Your task to perform on an android device: toggle translation in the chrome app Image 0: 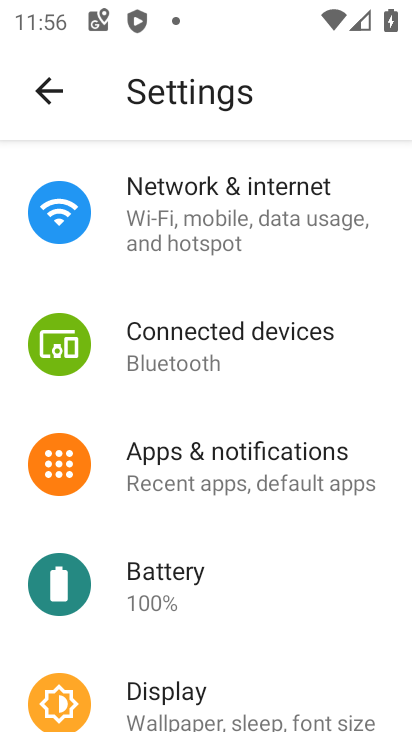
Step 0: press home button
Your task to perform on an android device: toggle translation in the chrome app Image 1: 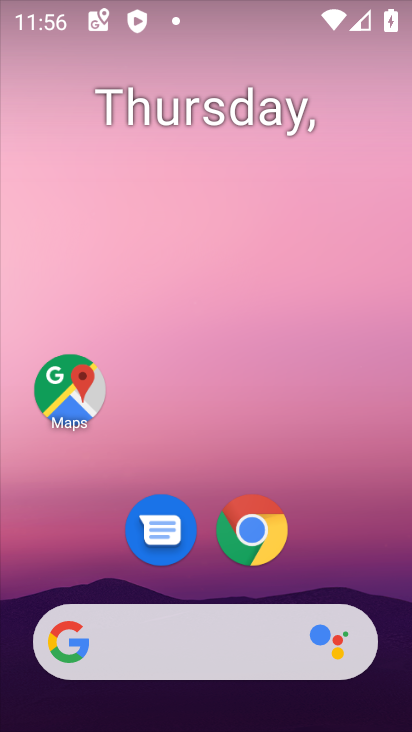
Step 1: click (254, 527)
Your task to perform on an android device: toggle translation in the chrome app Image 2: 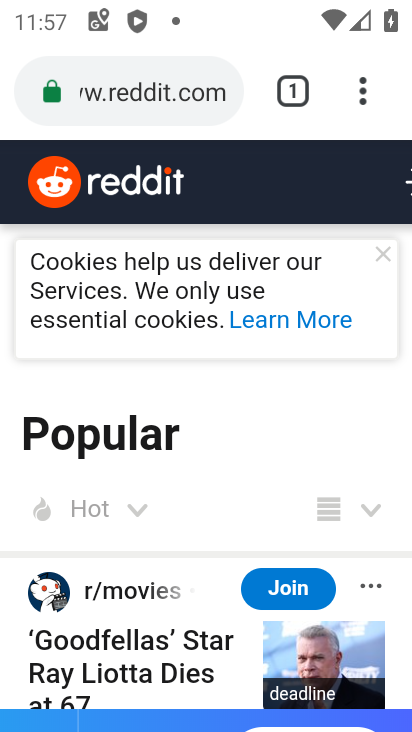
Step 2: click (363, 92)
Your task to perform on an android device: toggle translation in the chrome app Image 3: 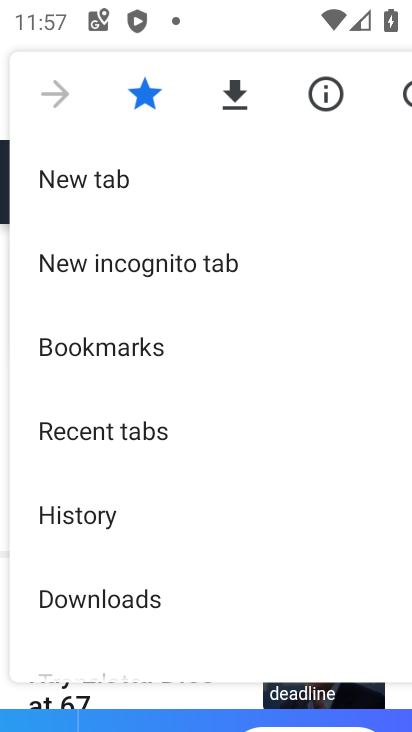
Step 3: drag from (103, 463) to (175, 359)
Your task to perform on an android device: toggle translation in the chrome app Image 4: 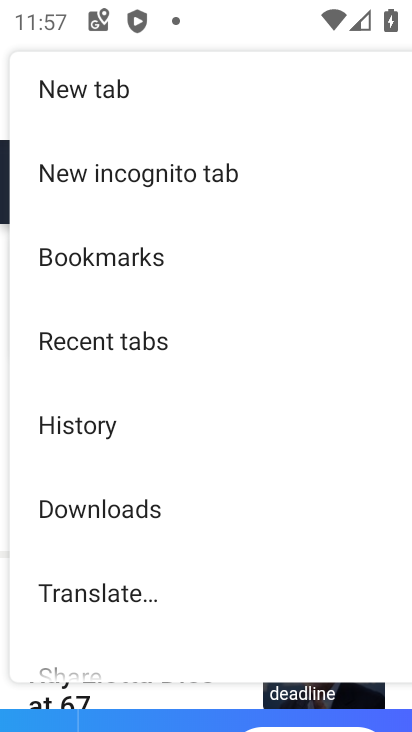
Step 4: drag from (112, 471) to (162, 380)
Your task to perform on an android device: toggle translation in the chrome app Image 5: 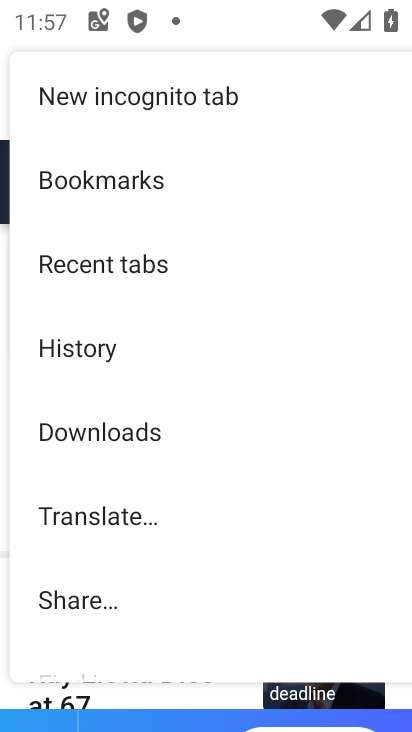
Step 5: drag from (90, 549) to (157, 450)
Your task to perform on an android device: toggle translation in the chrome app Image 6: 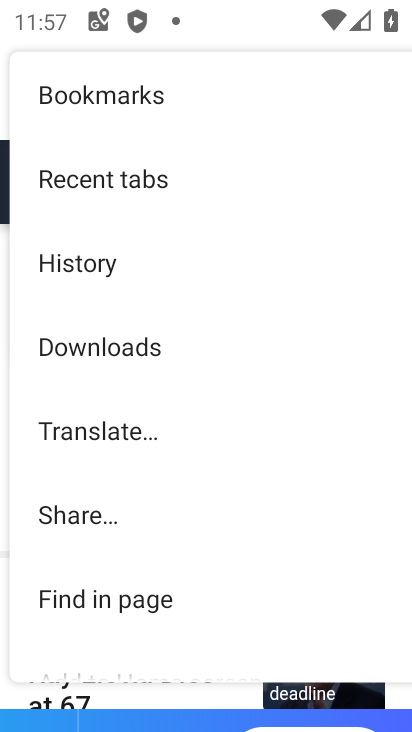
Step 6: drag from (74, 547) to (157, 428)
Your task to perform on an android device: toggle translation in the chrome app Image 7: 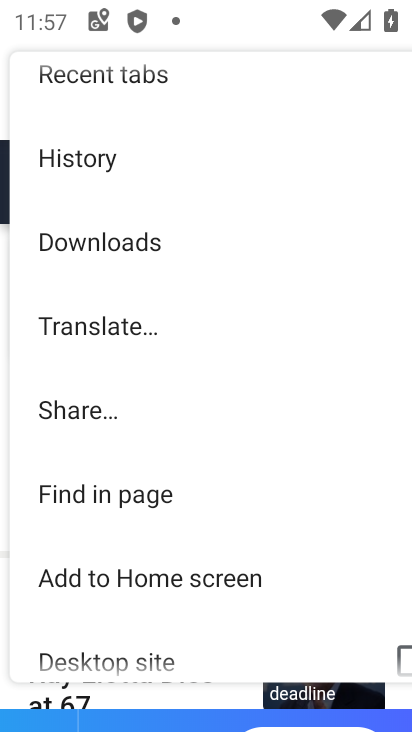
Step 7: drag from (101, 460) to (130, 389)
Your task to perform on an android device: toggle translation in the chrome app Image 8: 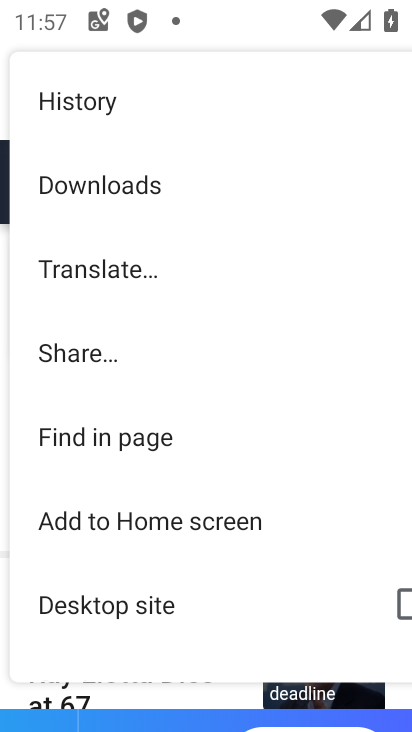
Step 8: drag from (85, 464) to (128, 383)
Your task to perform on an android device: toggle translation in the chrome app Image 9: 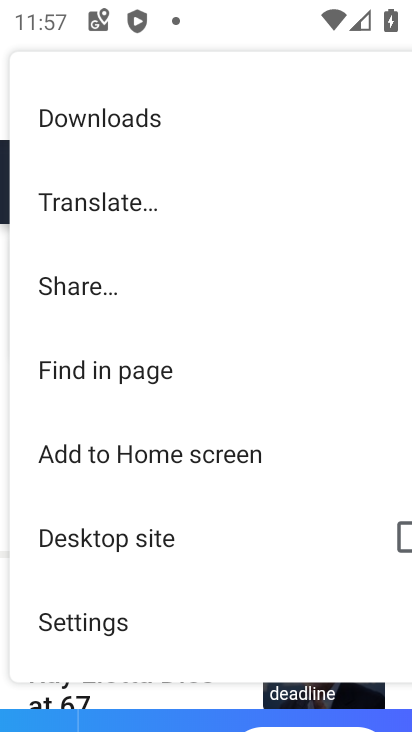
Step 9: drag from (100, 484) to (160, 382)
Your task to perform on an android device: toggle translation in the chrome app Image 10: 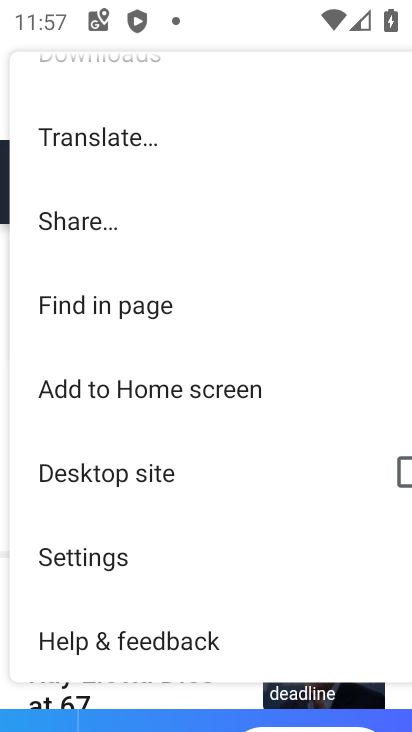
Step 10: drag from (82, 434) to (155, 335)
Your task to perform on an android device: toggle translation in the chrome app Image 11: 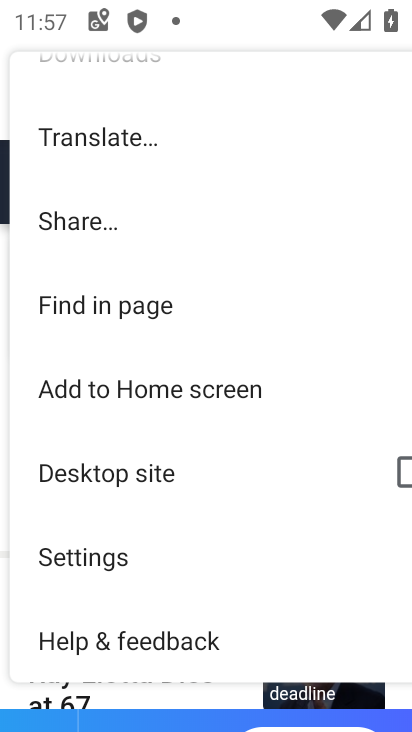
Step 11: click (109, 562)
Your task to perform on an android device: toggle translation in the chrome app Image 12: 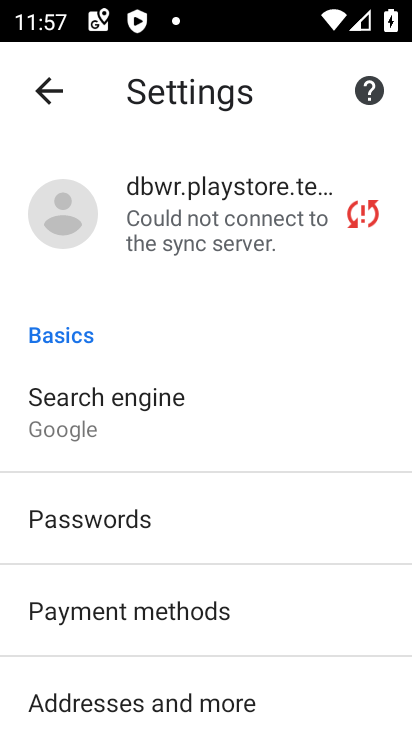
Step 12: drag from (171, 531) to (219, 443)
Your task to perform on an android device: toggle translation in the chrome app Image 13: 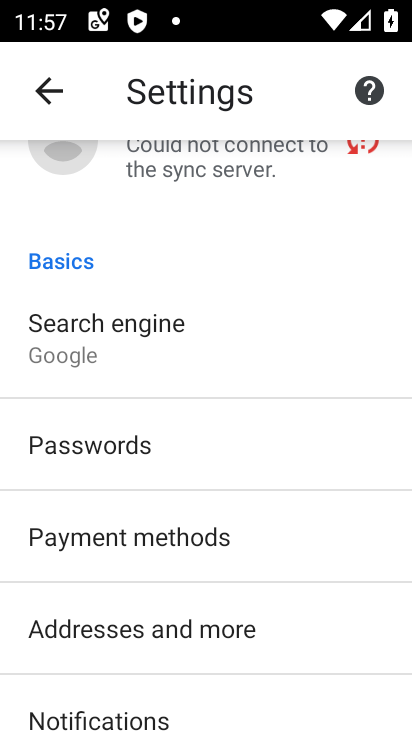
Step 13: drag from (139, 551) to (230, 449)
Your task to perform on an android device: toggle translation in the chrome app Image 14: 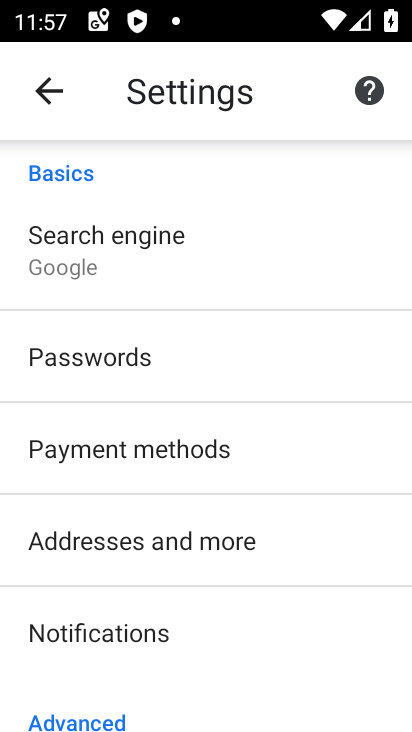
Step 14: drag from (99, 562) to (175, 473)
Your task to perform on an android device: toggle translation in the chrome app Image 15: 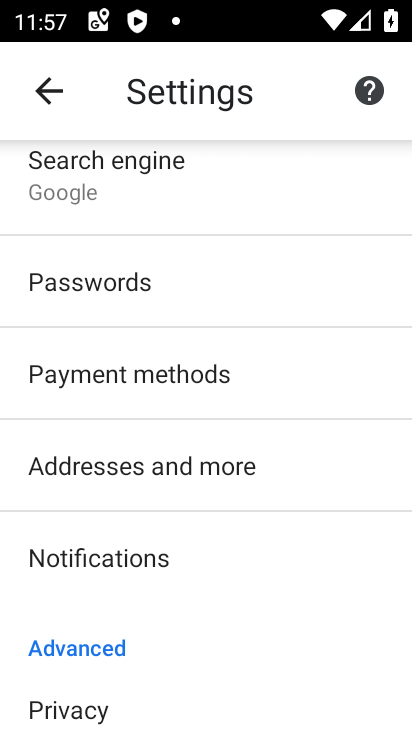
Step 15: drag from (98, 586) to (183, 497)
Your task to perform on an android device: toggle translation in the chrome app Image 16: 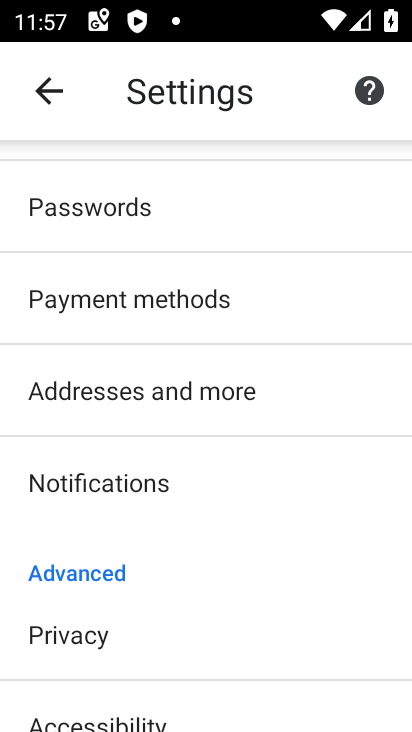
Step 16: drag from (109, 590) to (184, 492)
Your task to perform on an android device: toggle translation in the chrome app Image 17: 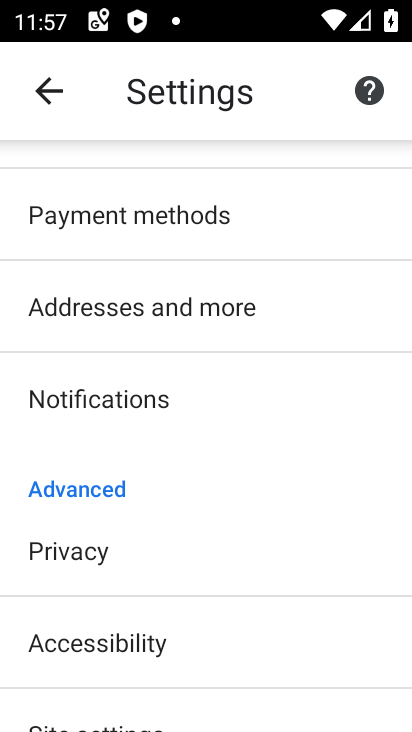
Step 17: drag from (77, 602) to (140, 536)
Your task to perform on an android device: toggle translation in the chrome app Image 18: 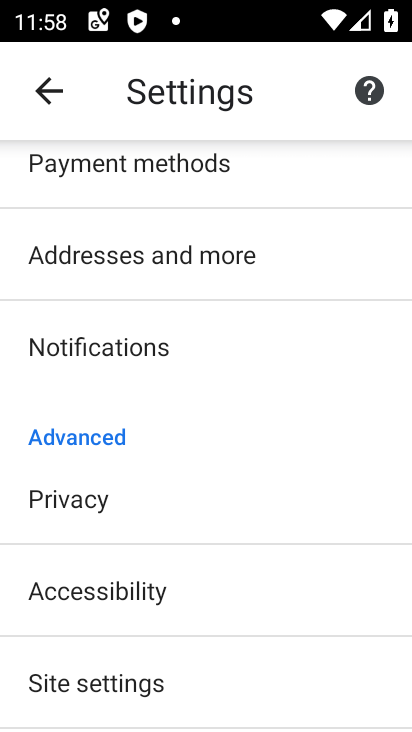
Step 18: drag from (83, 625) to (170, 446)
Your task to perform on an android device: toggle translation in the chrome app Image 19: 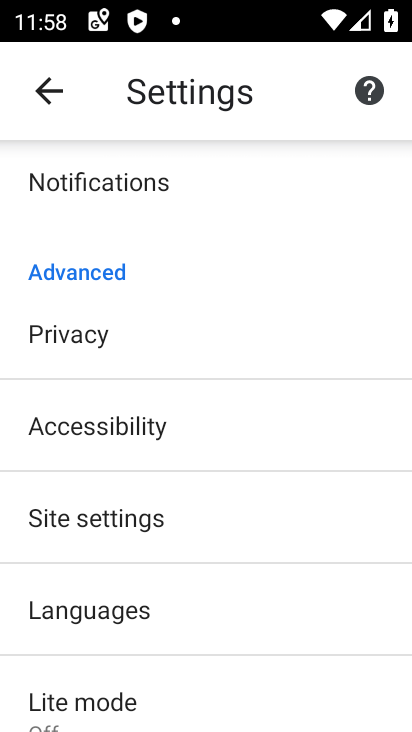
Step 19: drag from (127, 549) to (204, 437)
Your task to perform on an android device: toggle translation in the chrome app Image 20: 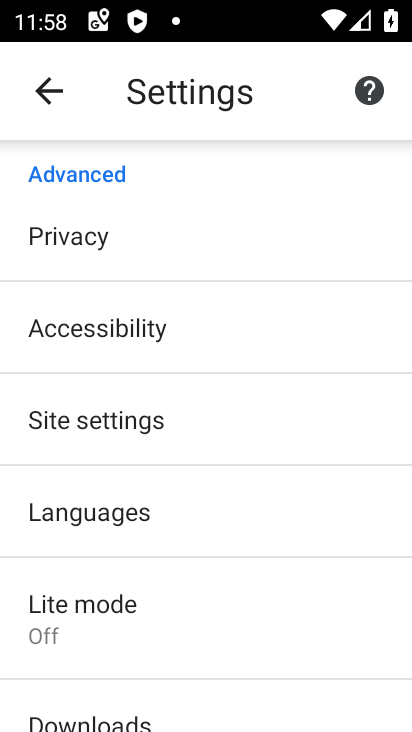
Step 20: click (95, 521)
Your task to perform on an android device: toggle translation in the chrome app Image 21: 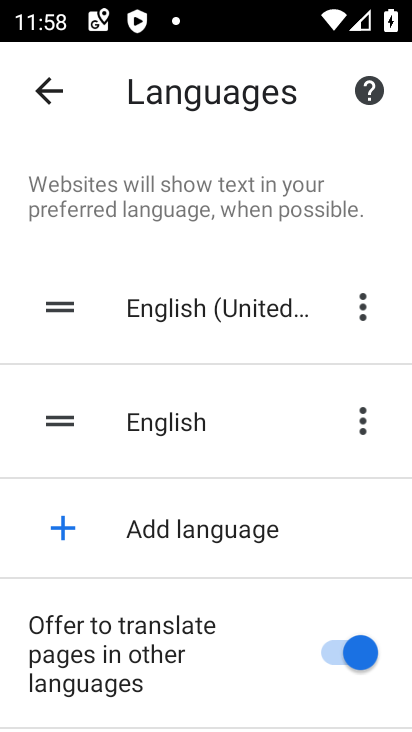
Step 21: click (329, 656)
Your task to perform on an android device: toggle translation in the chrome app Image 22: 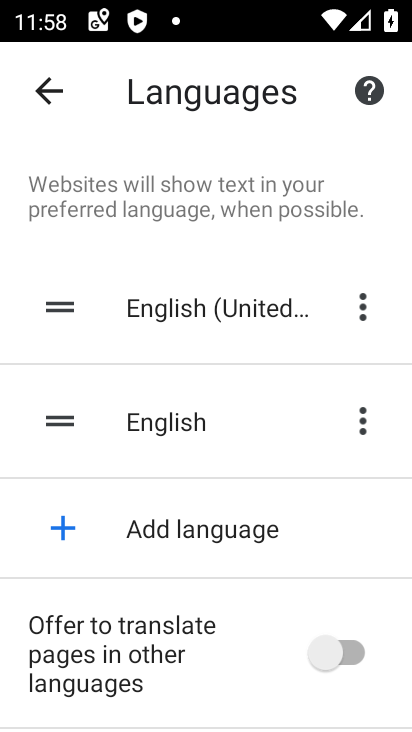
Step 22: task complete